Your task to perform on an android device: read, delete, or share a saved page in the chrome app Image 0: 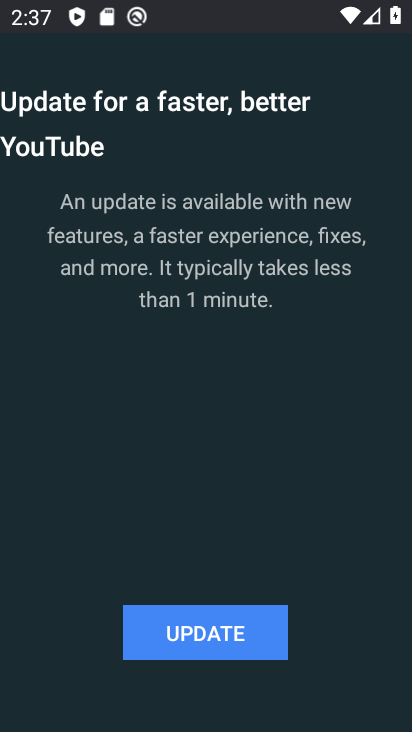
Step 0: press back button
Your task to perform on an android device: read, delete, or share a saved page in the chrome app Image 1: 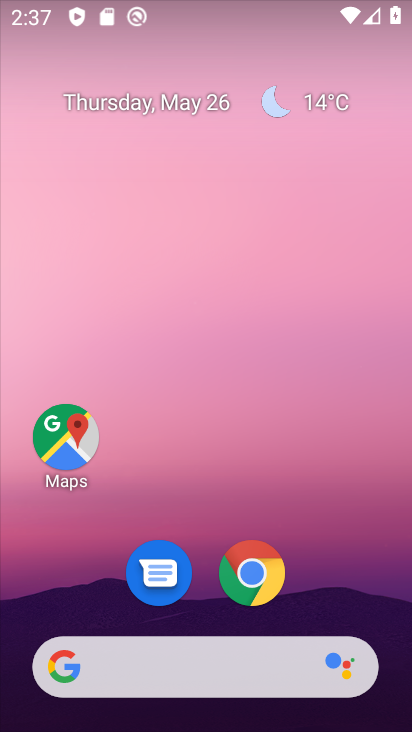
Step 1: drag from (344, 566) to (219, 17)
Your task to perform on an android device: read, delete, or share a saved page in the chrome app Image 2: 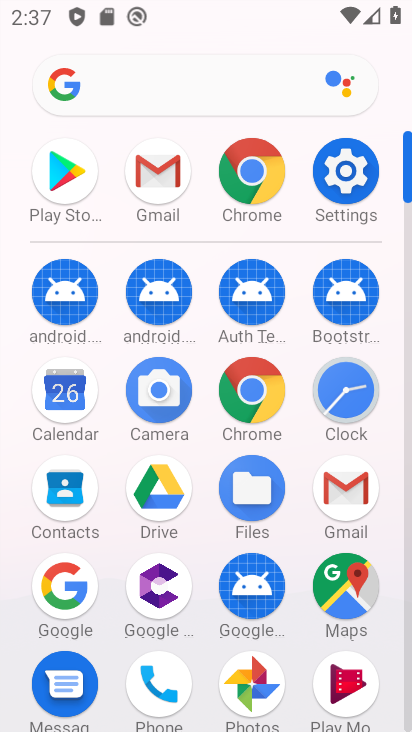
Step 2: drag from (5, 567) to (31, 178)
Your task to perform on an android device: read, delete, or share a saved page in the chrome app Image 3: 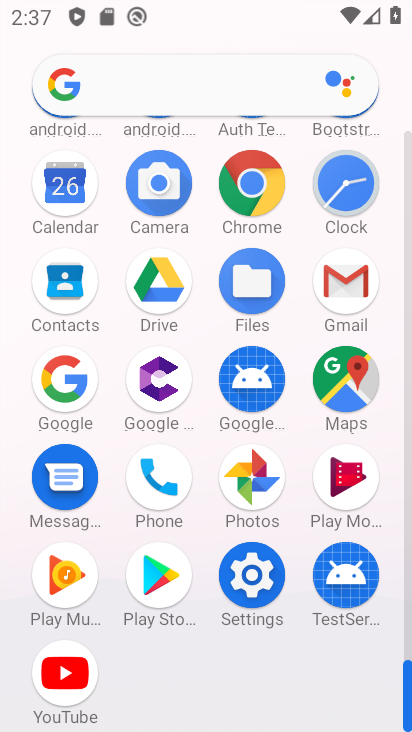
Step 3: click (246, 178)
Your task to perform on an android device: read, delete, or share a saved page in the chrome app Image 4: 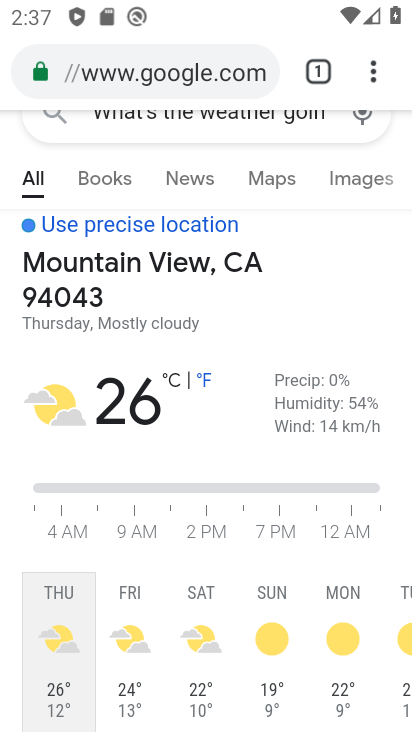
Step 4: task complete